Your task to perform on an android device: Open Google Maps and go to "Timeline" Image 0: 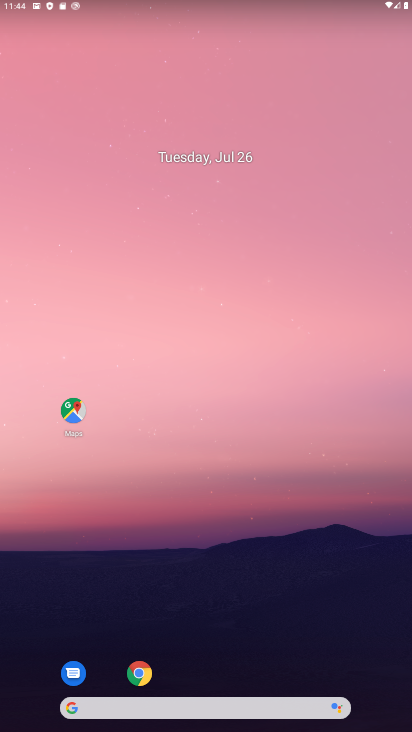
Step 0: drag from (226, 668) to (234, 238)
Your task to perform on an android device: Open Google Maps and go to "Timeline" Image 1: 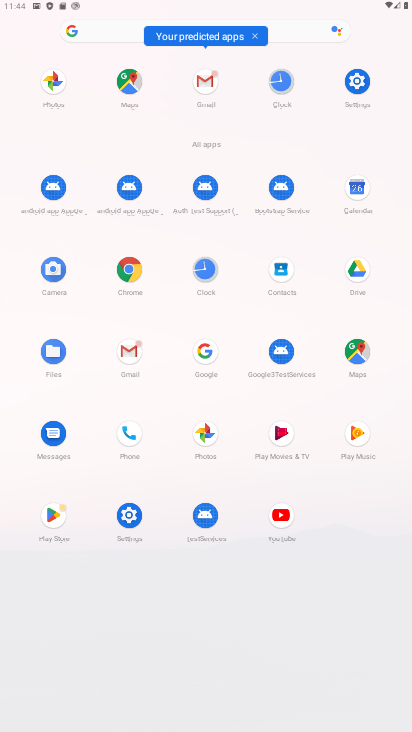
Step 1: click (357, 355)
Your task to perform on an android device: Open Google Maps and go to "Timeline" Image 2: 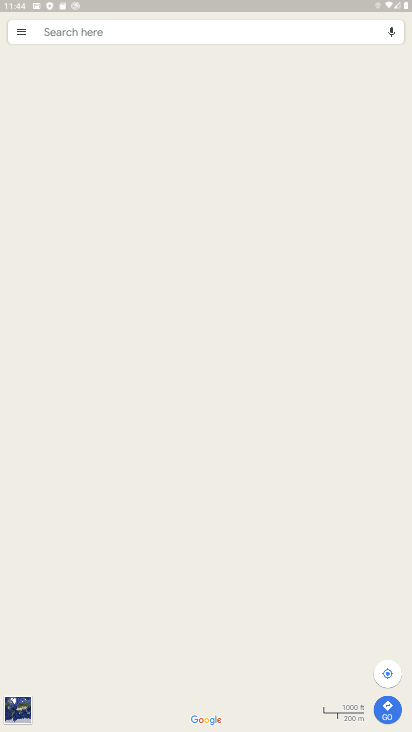
Step 2: click (20, 30)
Your task to perform on an android device: Open Google Maps and go to "Timeline" Image 3: 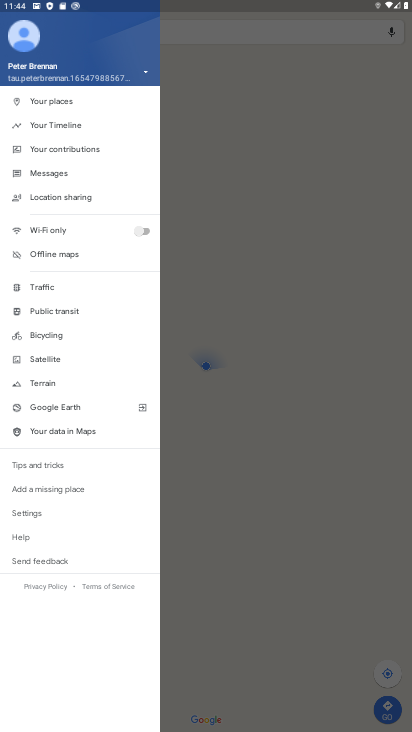
Step 3: click (42, 123)
Your task to perform on an android device: Open Google Maps and go to "Timeline" Image 4: 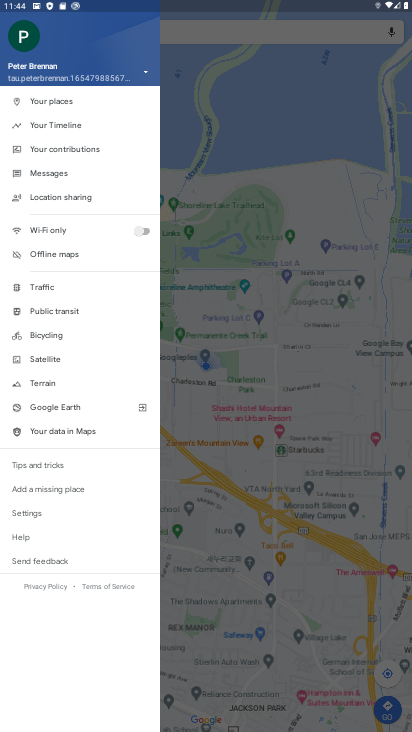
Step 4: click (72, 126)
Your task to perform on an android device: Open Google Maps and go to "Timeline" Image 5: 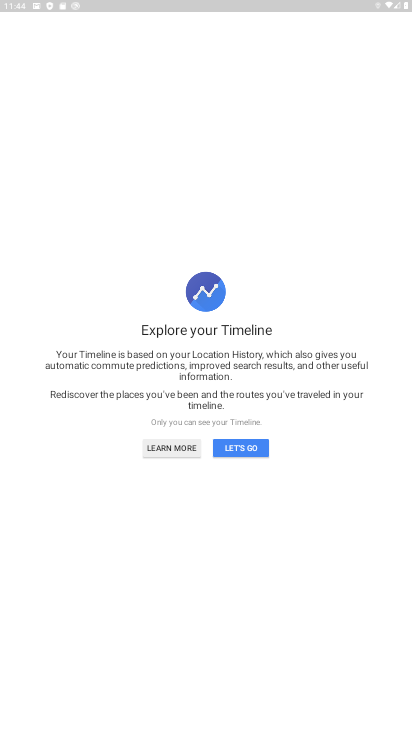
Step 5: click (237, 449)
Your task to perform on an android device: Open Google Maps and go to "Timeline" Image 6: 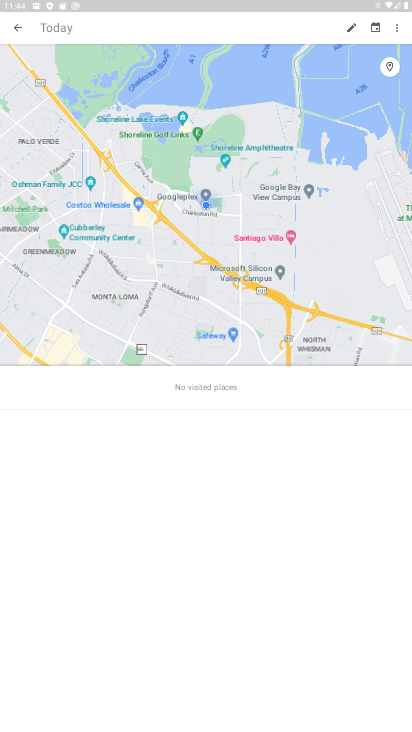
Step 6: task complete